Your task to perform on an android device: see tabs open on other devices in the chrome app Image 0: 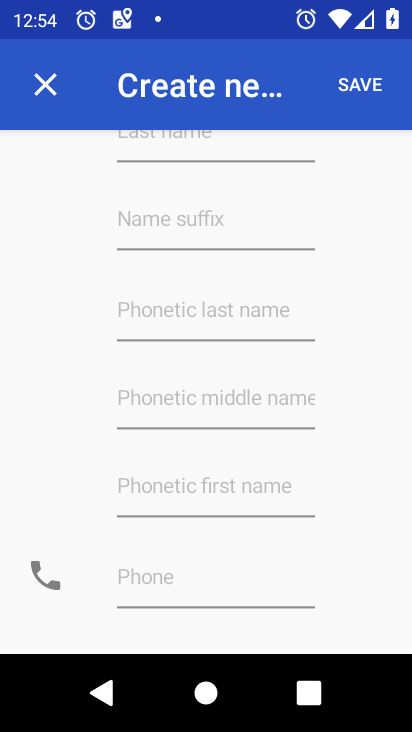
Step 0: press home button
Your task to perform on an android device: see tabs open on other devices in the chrome app Image 1: 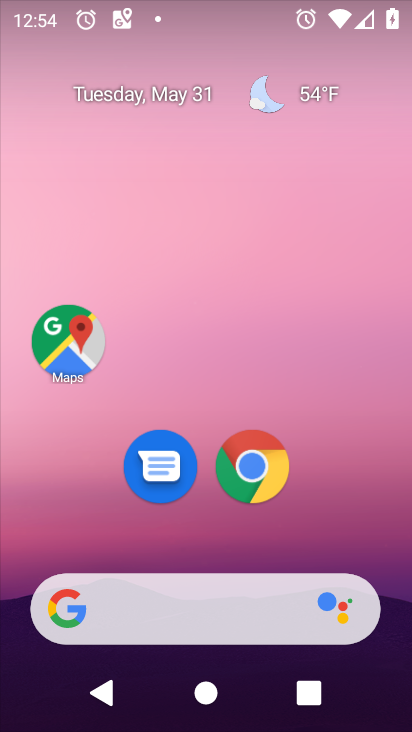
Step 1: click (231, 474)
Your task to perform on an android device: see tabs open on other devices in the chrome app Image 2: 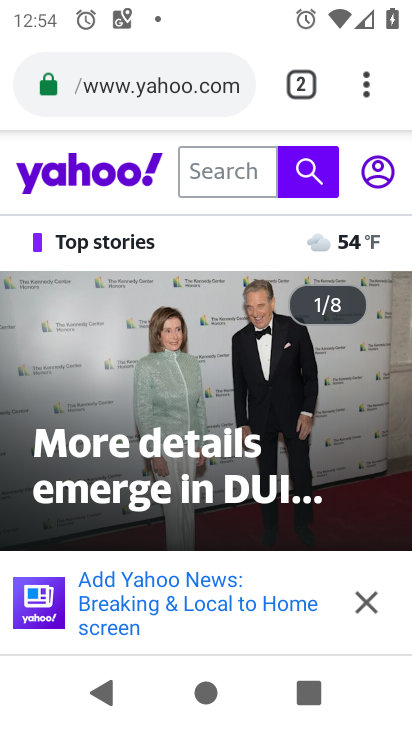
Step 2: click (360, 98)
Your task to perform on an android device: see tabs open on other devices in the chrome app Image 3: 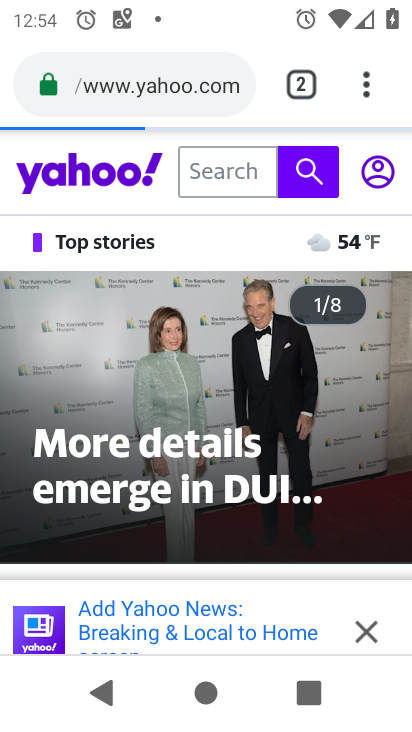
Step 3: task complete